Your task to perform on an android device: open app "VLC for Android" (install if not already installed) Image 0: 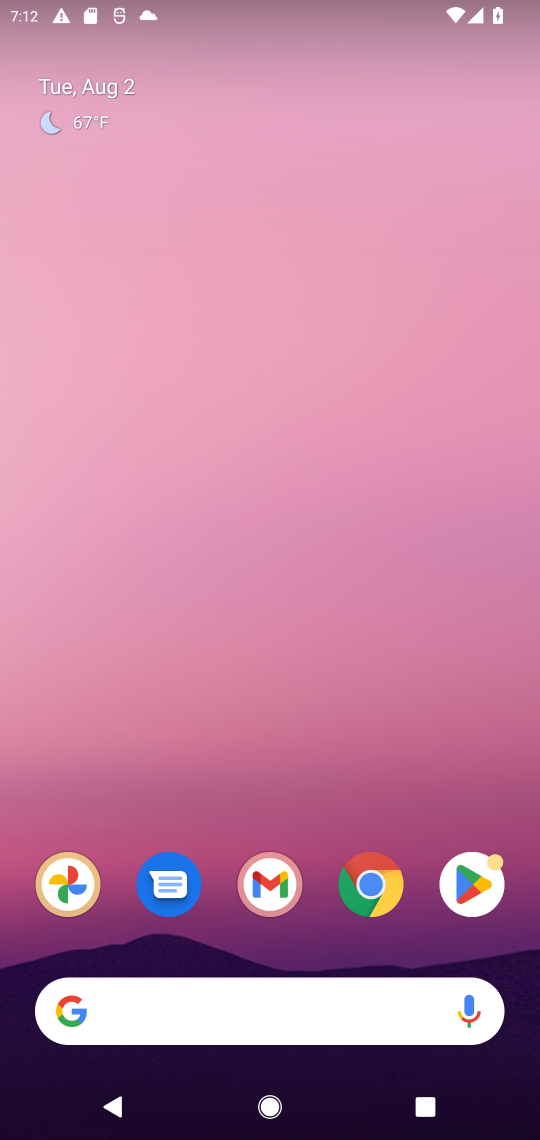
Step 0: press home button
Your task to perform on an android device: open app "VLC for Android" (install if not already installed) Image 1: 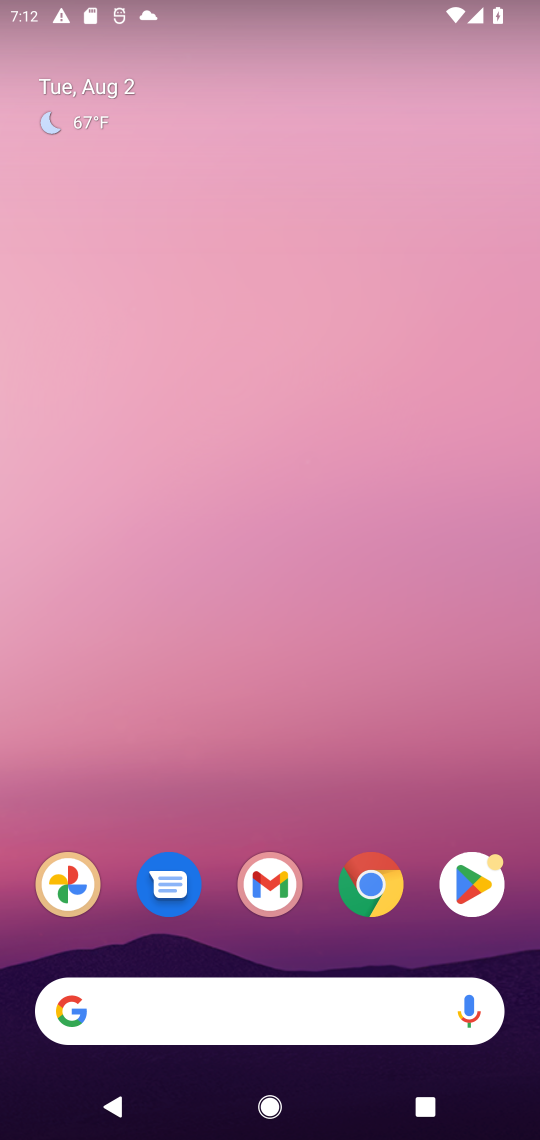
Step 1: click (449, 876)
Your task to perform on an android device: open app "VLC for Android" (install if not already installed) Image 2: 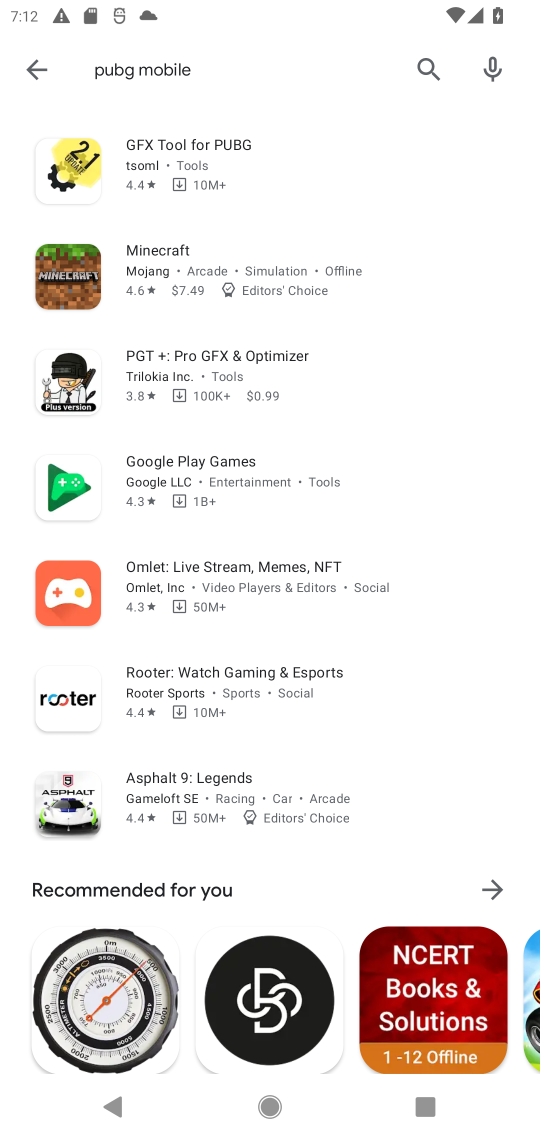
Step 2: click (417, 62)
Your task to perform on an android device: open app "VLC for Android" (install if not already installed) Image 3: 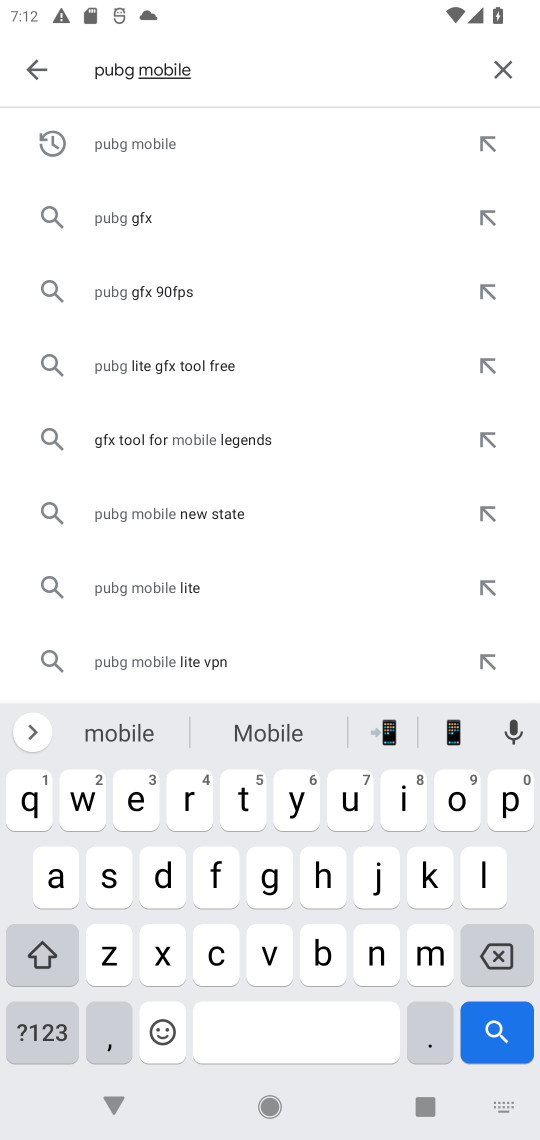
Step 3: click (493, 73)
Your task to perform on an android device: open app "VLC for Android" (install if not already installed) Image 4: 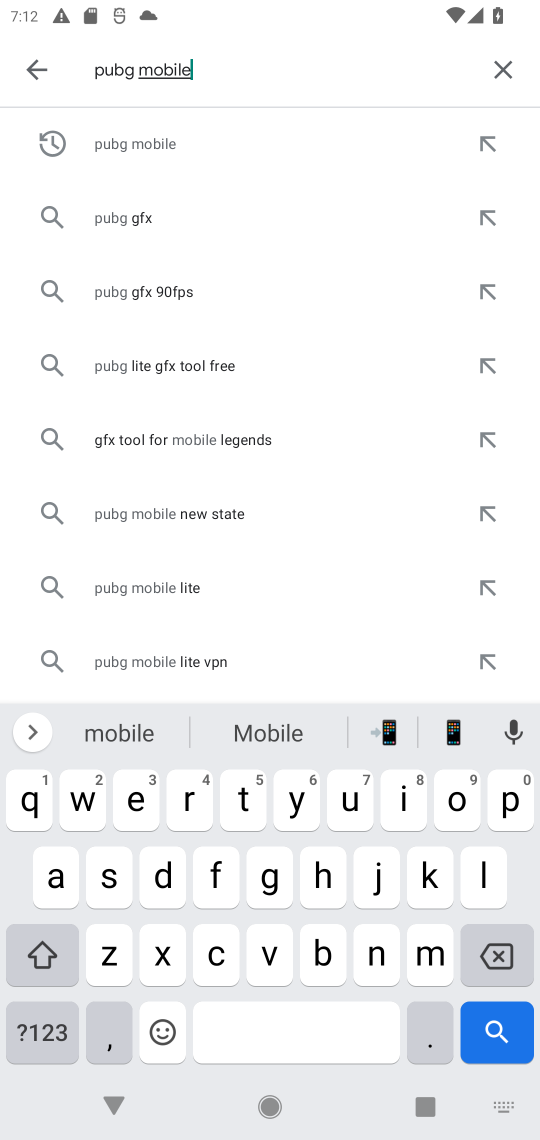
Step 4: click (495, 73)
Your task to perform on an android device: open app "VLC for Android" (install if not already installed) Image 5: 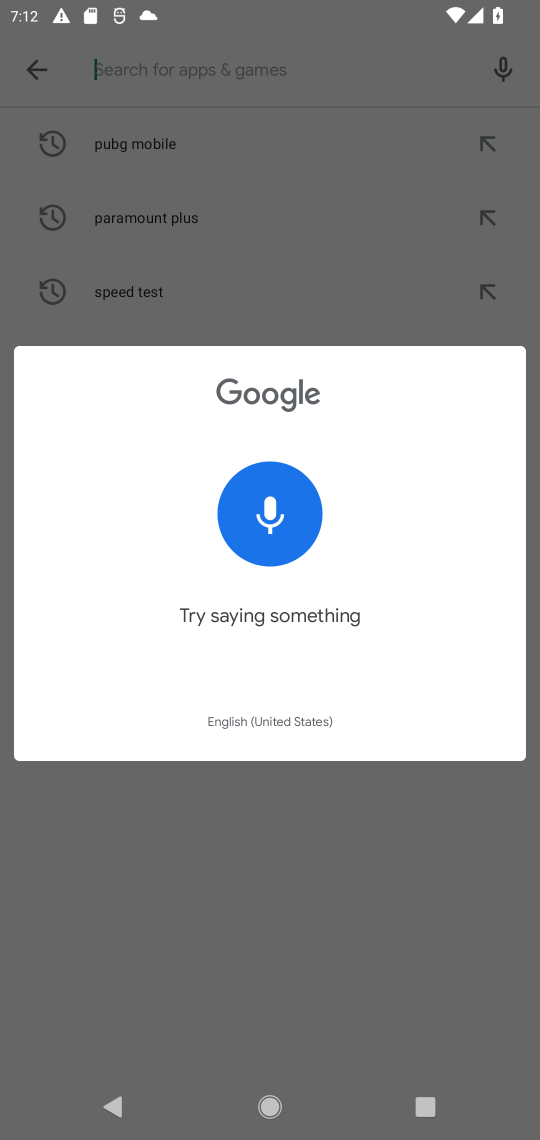
Step 5: click (263, 249)
Your task to perform on an android device: open app "VLC for Android" (install if not already installed) Image 6: 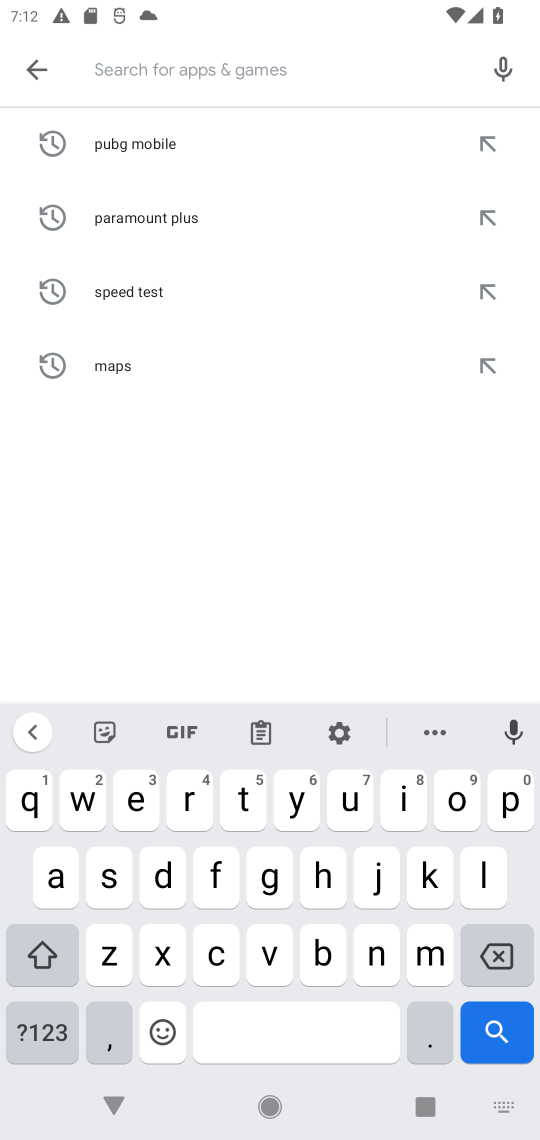
Step 6: click (269, 961)
Your task to perform on an android device: open app "VLC for Android" (install if not already installed) Image 7: 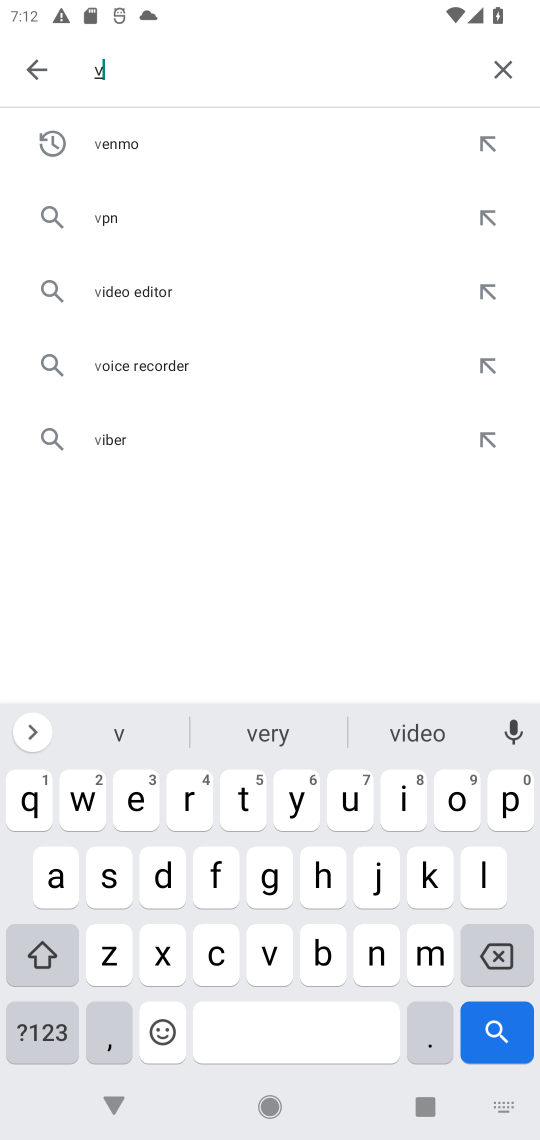
Step 7: click (485, 875)
Your task to perform on an android device: open app "VLC for Android" (install if not already installed) Image 8: 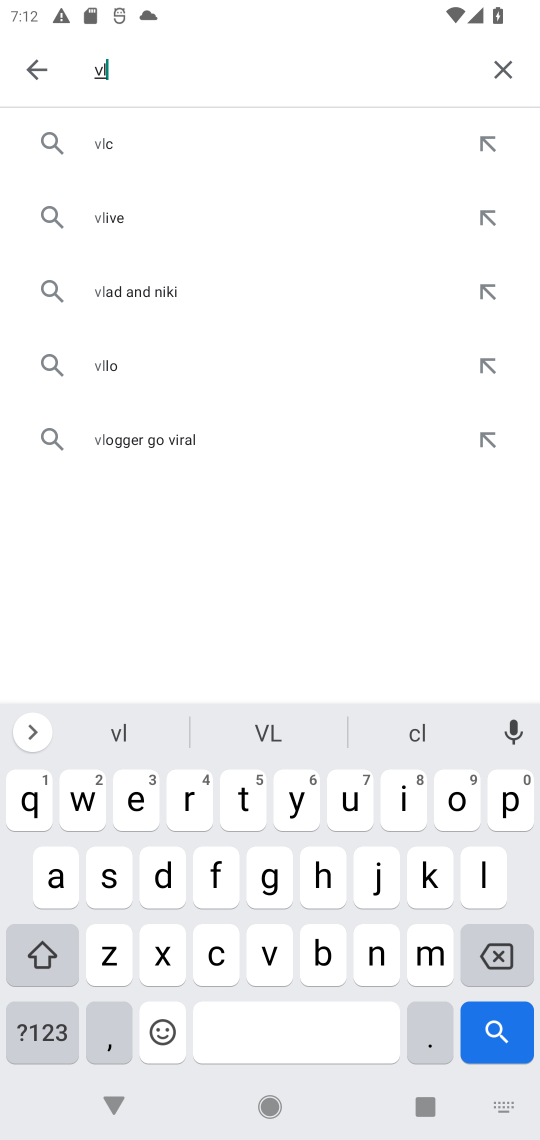
Step 8: click (212, 953)
Your task to perform on an android device: open app "VLC for Android" (install if not already installed) Image 9: 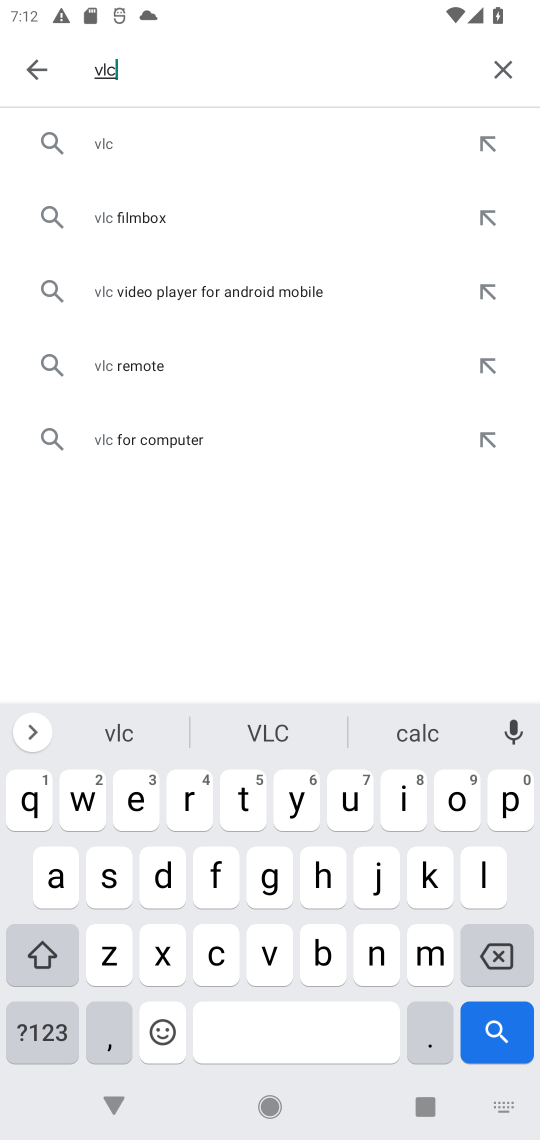
Step 9: click (133, 153)
Your task to perform on an android device: open app "VLC for Android" (install if not already installed) Image 10: 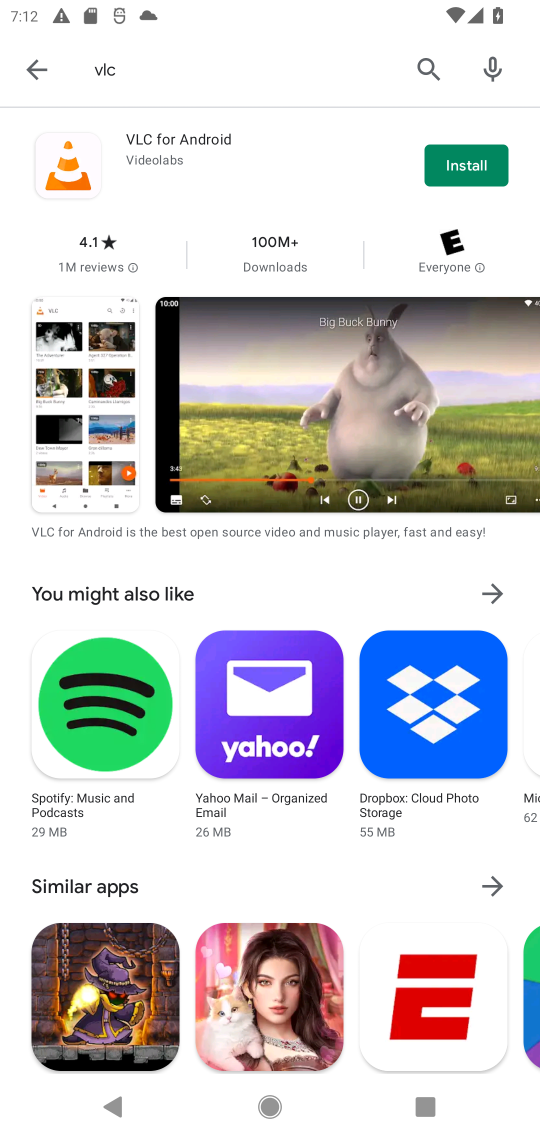
Step 10: click (456, 168)
Your task to perform on an android device: open app "VLC for Android" (install if not already installed) Image 11: 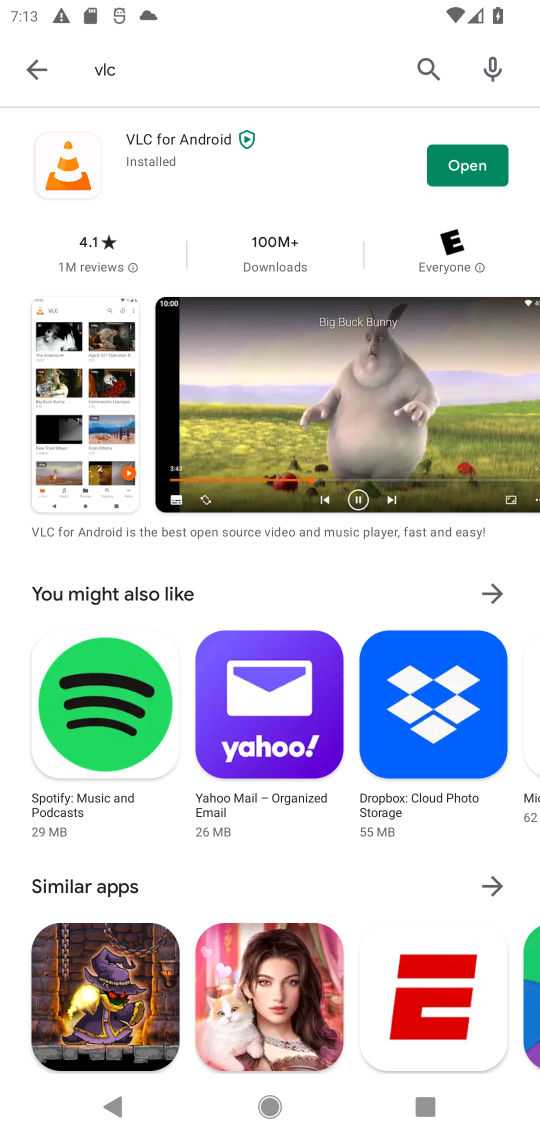
Step 11: click (465, 174)
Your task to perform on an android device: open app "VLC for Android" (install if not already installed) Image 12: 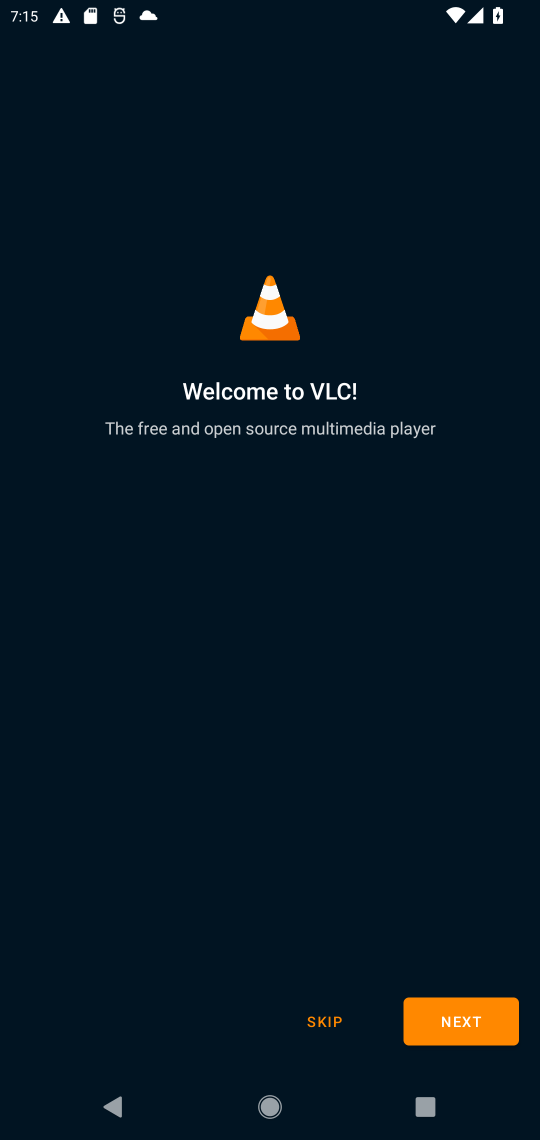
Step 12: task complete